Your task to perform on an android device: find photos in the google photos app Image 0: 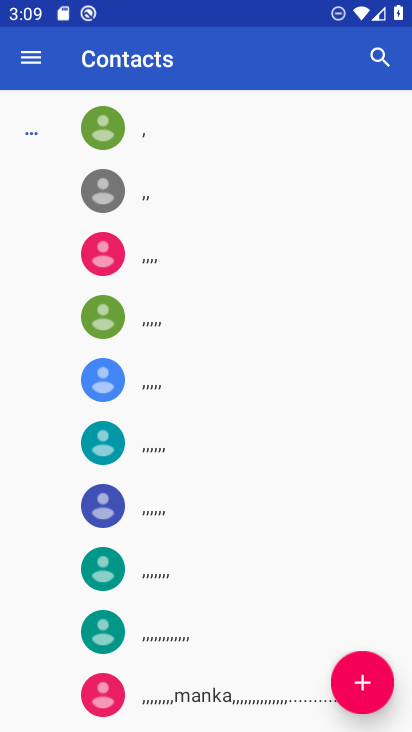
Step 0: press home button
Your task to perform on an android device: find photos in the google photos app Image 1: 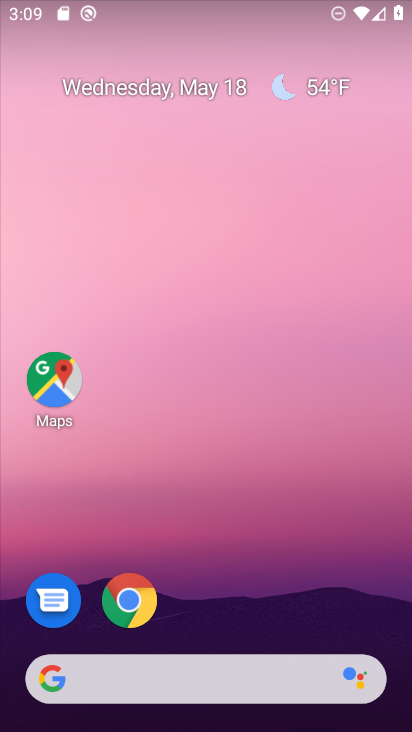
Step 1: drag from (195, 619) to (288, 0)
Your task to perform on an android device: find photos in the google photos app Image 2: 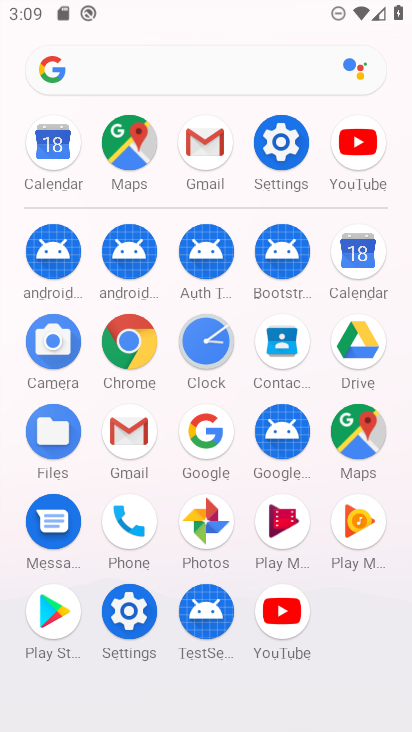
Step 2: click (207, 538)
Your task to perform on an android device: find photos in the google photos app Image 3: 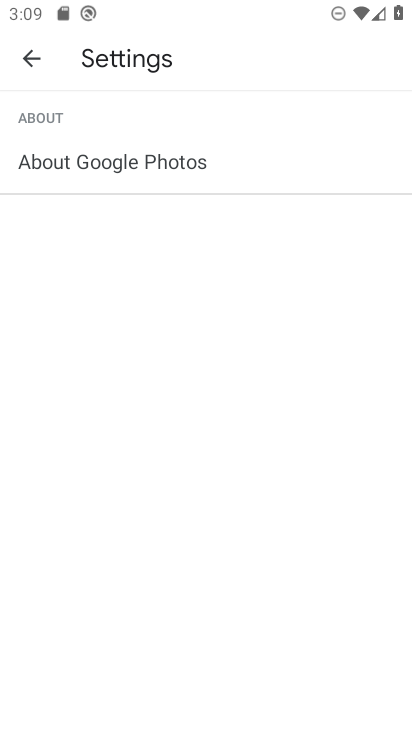
Step 3: click (35, 55)
Your task to perform on an android device: find photos in the google photos app Image 4: 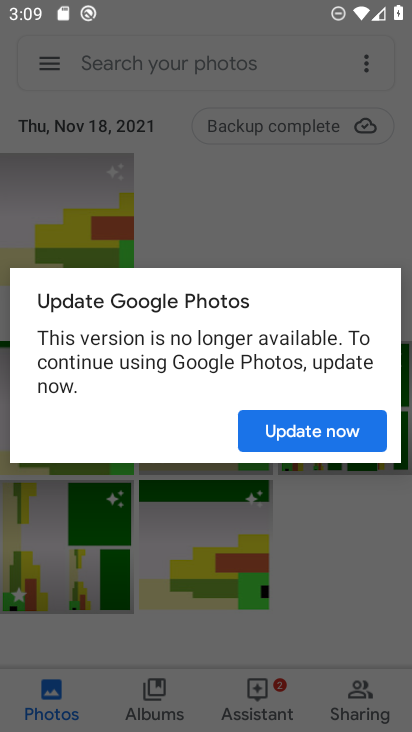
Step 4: click (297, 442)
Your task to perform on an android device: find photos in the google photos app Image 5: 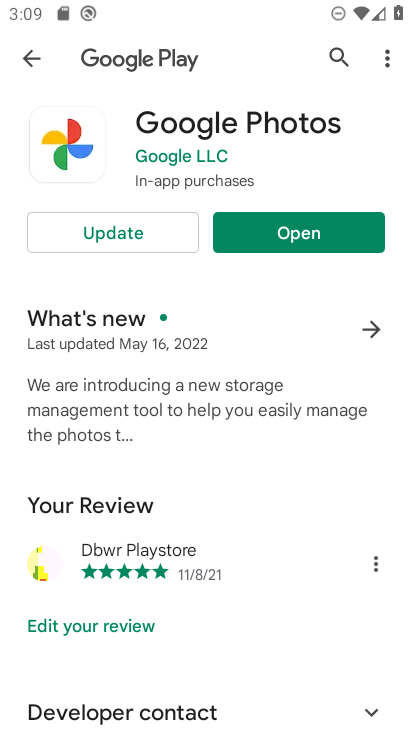
Step 5: task complete